Your task to perform on an android device: change alarm snooze length Image 0: 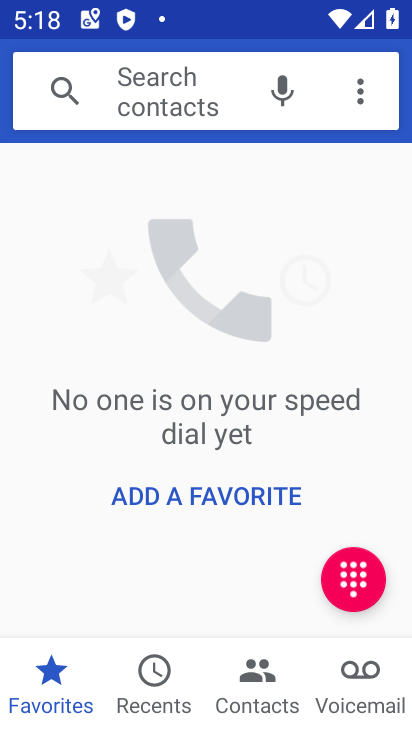
Step 0: press home button
Your task to perform on an android device: change alarm snooze length Image 1: 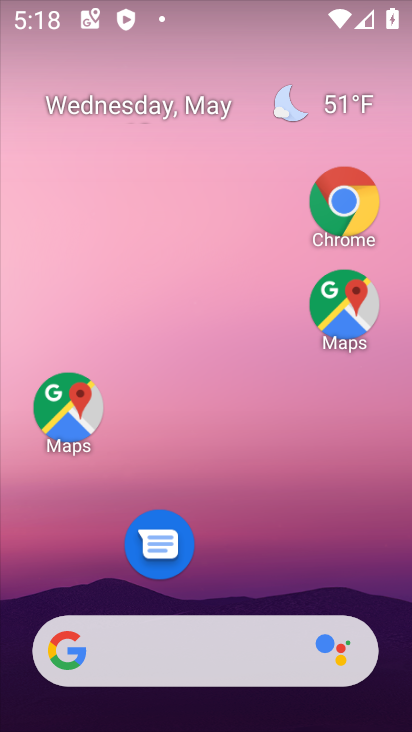
Step 1: drag from (258, 561) to (240, 71)
Your task to perform on an android device: change alarm snooze length Image 2: 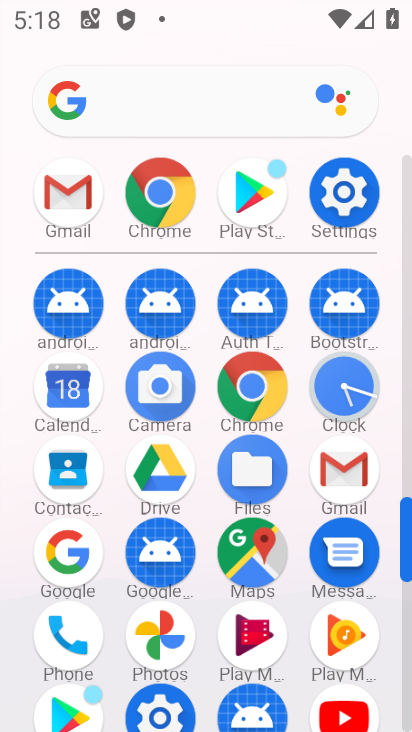
Step 2: click (349, 388)
Your task to perform on an android device: change alarm snooze length Image 3: 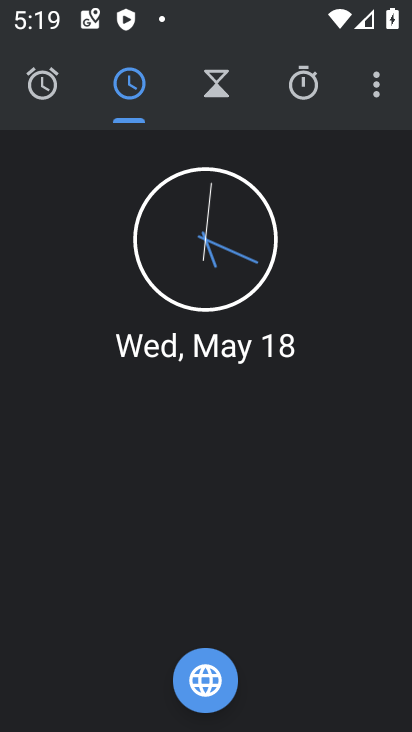
Step 3: click (383, 92)
Your task to perform on an android device: change alarm snooze length Image 4: 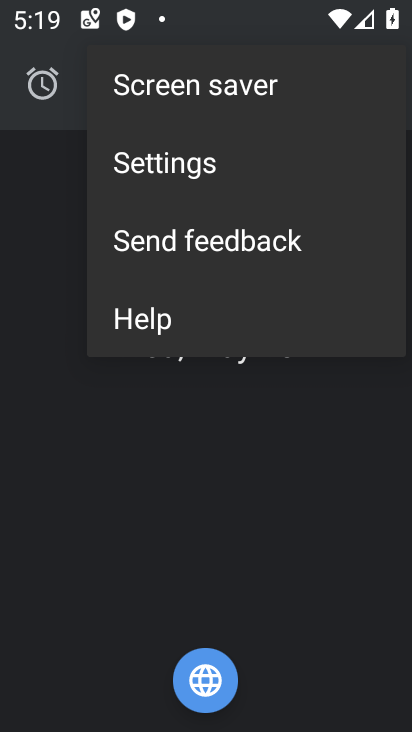
Step 4: click (212, 155)
Your task to perform on an android device: change alarm snooze length Image 5: 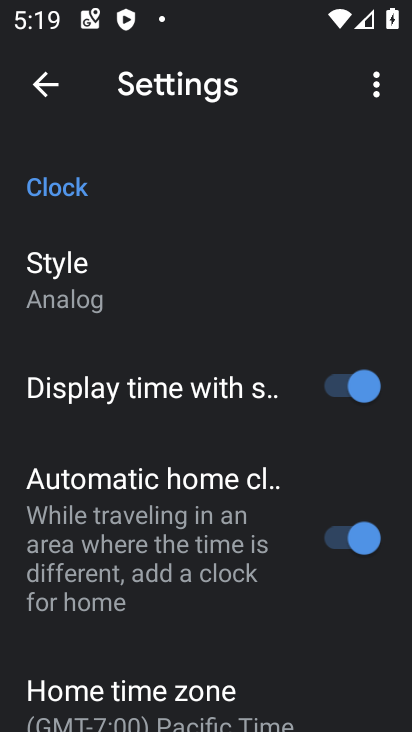
Step 5: click (145, 199)
Your task to perform on an android device: change alarm snooze length Image 6: 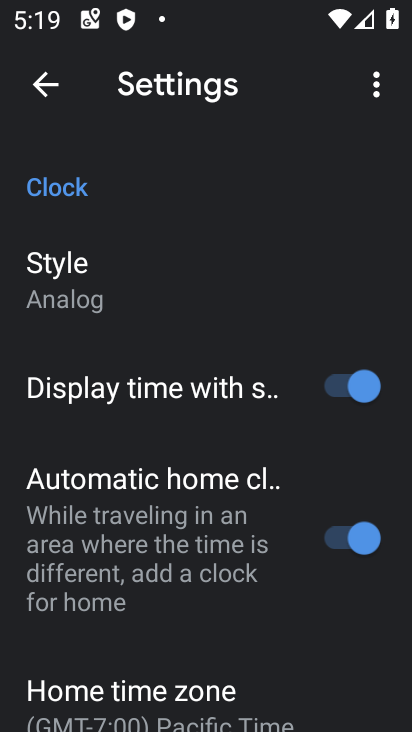
Step 6: drag from (147, 581) to (172, 214)
Your task to perform on an android device: change alarm snooze length Image 7: 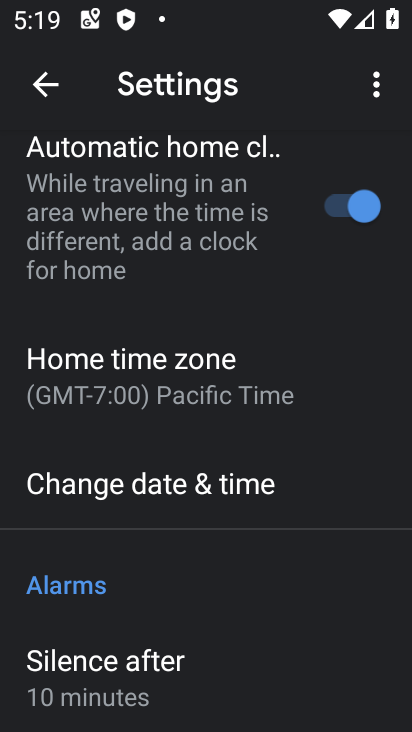
Step 7: drag from (164, 662) to (178, 263)
Your task to perform on an android device: change alarm snooze length Image 8: 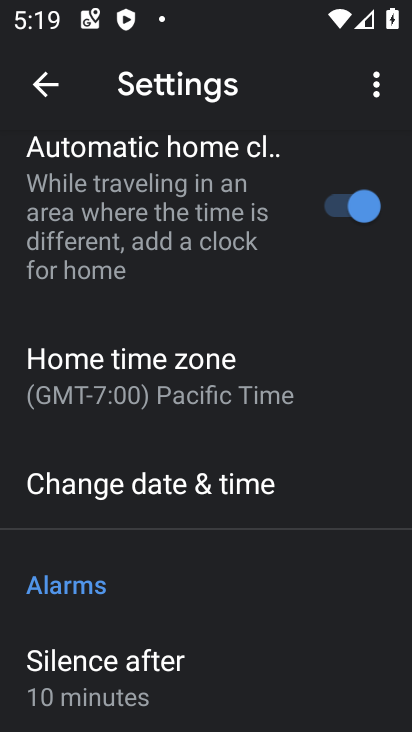
Step 8: drag from (171, 562) to (166, 368)
Your task to perform on an android device: change alarm snooze length Image 9: 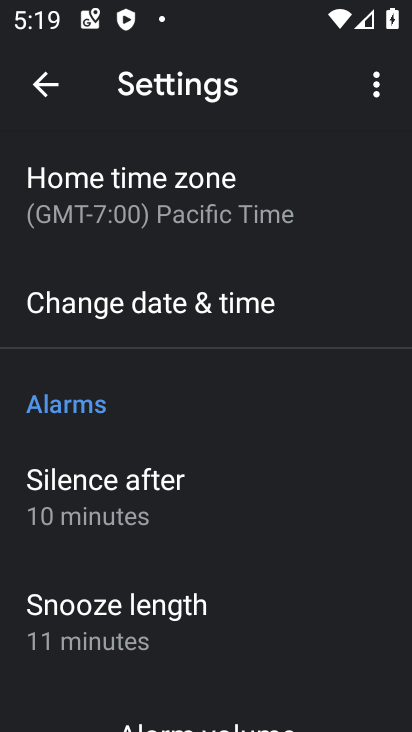
Step 9: click (111, 628)
Your task to perform on an android device: change alarm snooze length Image 10: 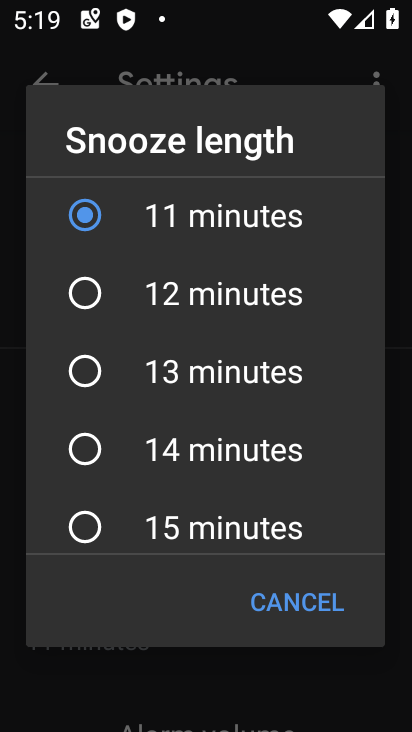
Step 10: click (87, 306)
Your task to perform on an android device: change alarm snooze length Image 11: 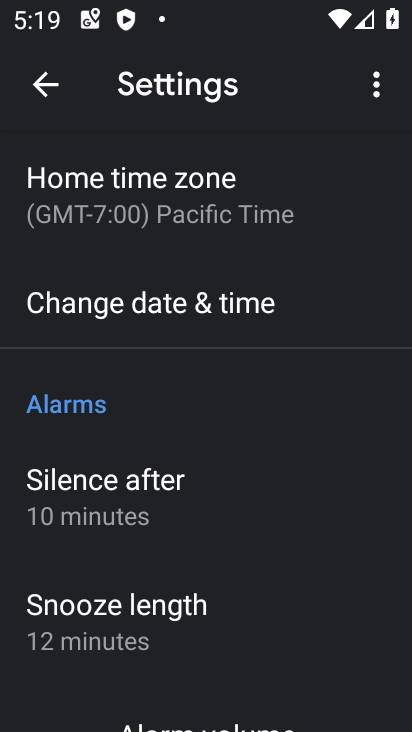
Step 11: task complete